Your task to perform on an android device: turn off priority inbox in the gmail app Image 0: 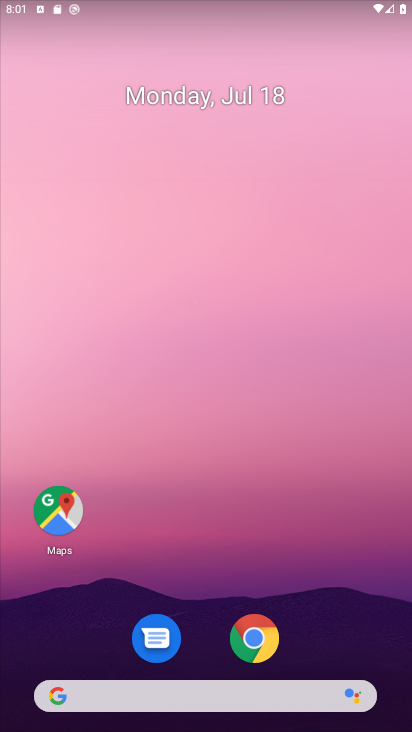
Step 0: drag from (214, 257) to (221, 61)
Your task to perform on an android device: turn off priority inbox in the gmail app Image 1: 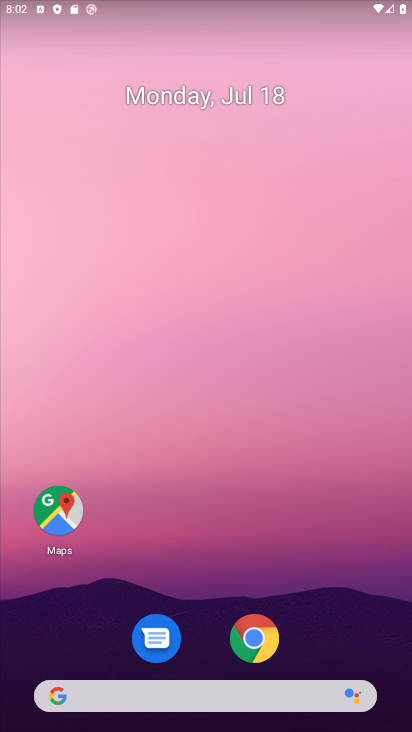
Step 1: drag from (212, 648) to (207, 212)
Your task to perform on an android device: turn off priority inbox in the gmail app Image 2: 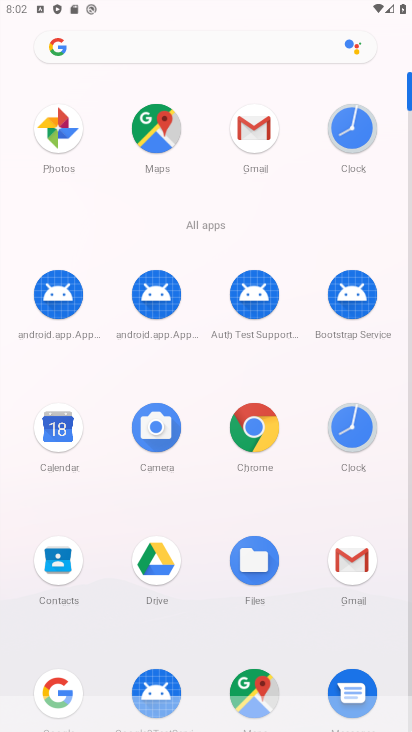
Step 2: click (252, 128)
Your task to perform on an android device: turn off priority inbox in the gmail app Image 3: 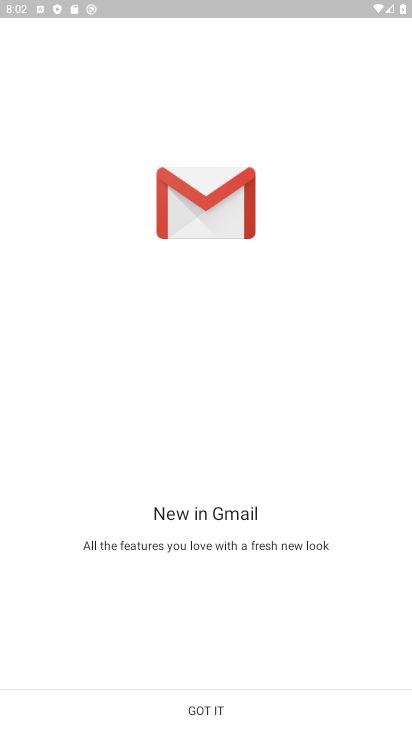
Step 3: click (214, 711)
Your task to perform on an android device: turn off priority inbox in the gmail app Image 4: 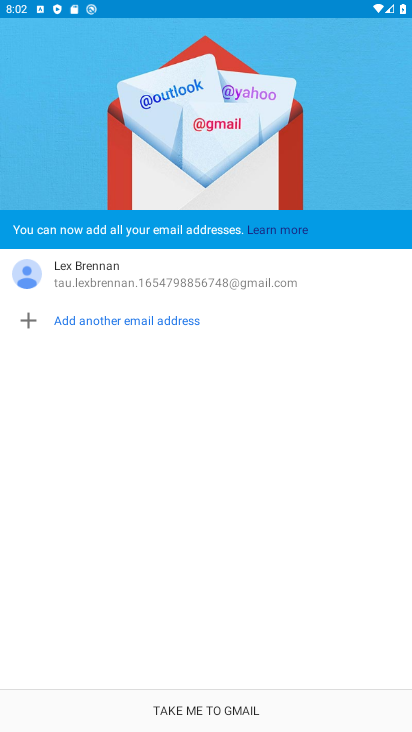
Step 4: click (205, 707)
Your task to perform on an android device: turn off priority inbox in the gmail app Image 5: 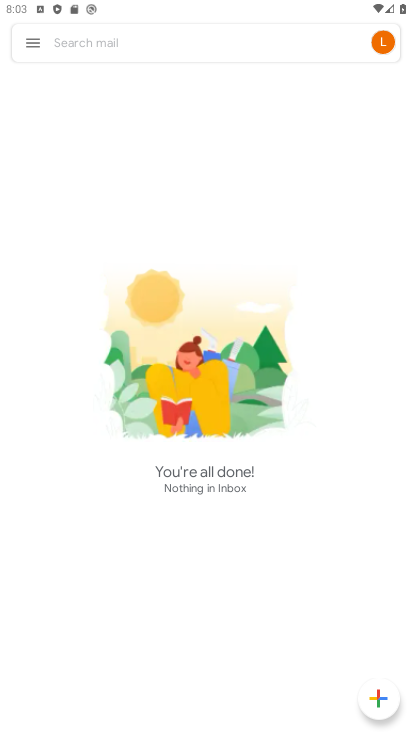
Step 5: click (26, 41)
Your task to perform on an android device: turn off priority inbox in the gmail app Image 6: 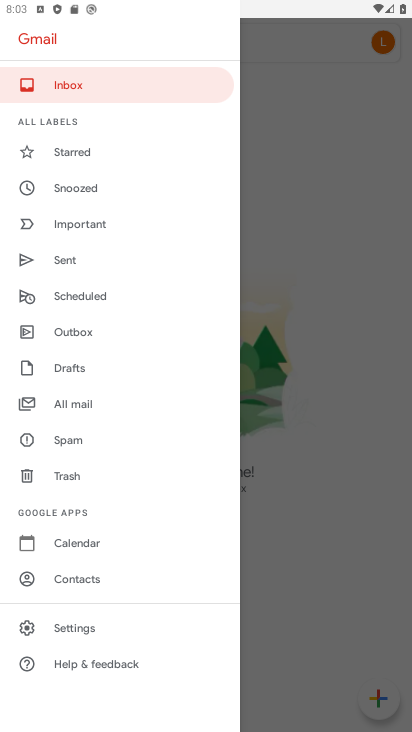
Step 6: click (99, 629)
Your task to perform on an android device: turn off priority inbox in the gmail app Image 7: 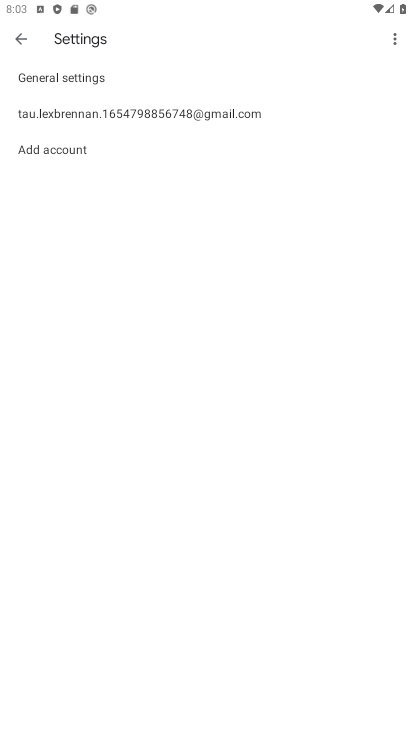
Step 7: click (128, 108)
Your task to perform on an android device: turn off priority inbox in the gmail app Image 8: 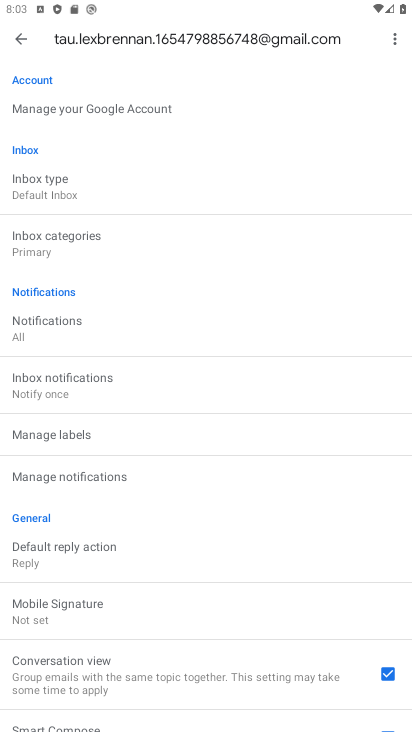
Step 8: click (91, 183)
Your task to perform on an android device: turn off priority inbox in the gmail app Image 9: 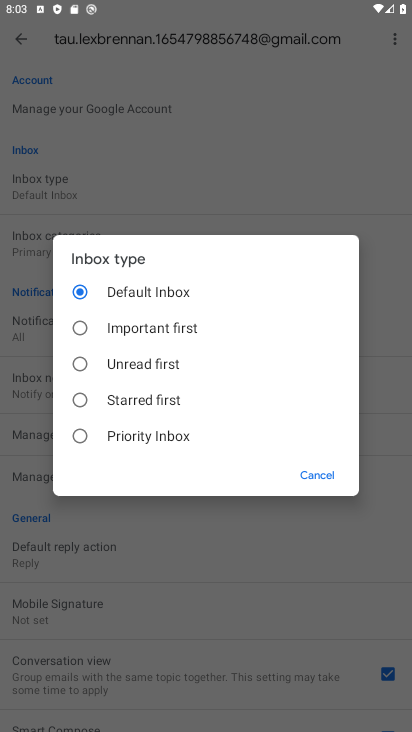
Step 9: click (76, 404)
Your task to perform on an android device: turn off priority inbox in the gmail app Image 10: 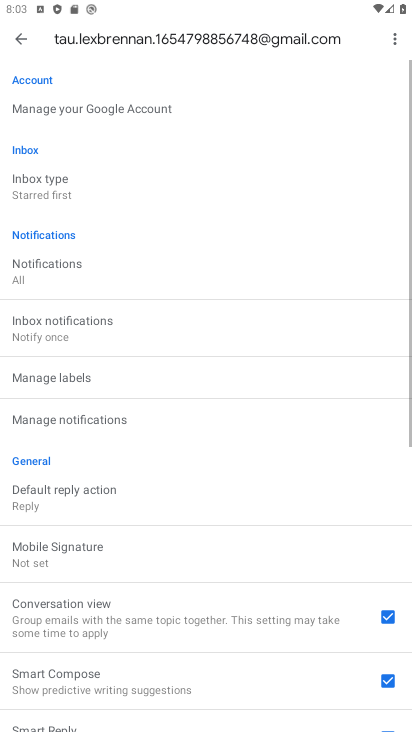
Step 10: task complete